Your task to perform on an android device: allow cookies in the chrome app Image 0: 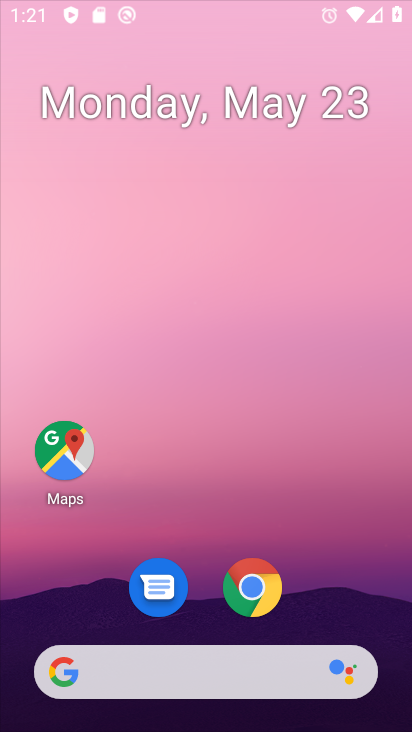
Step 0: click (65, 460)
Your task to perform on an android device: allow cookies in the chrome app Image 1: 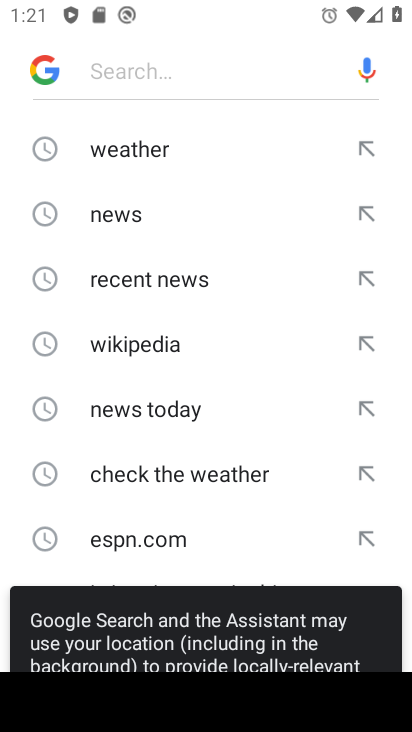
Step 1: press back button
Your task to perform on an android device: allow cookies in the chrome app Image 2: 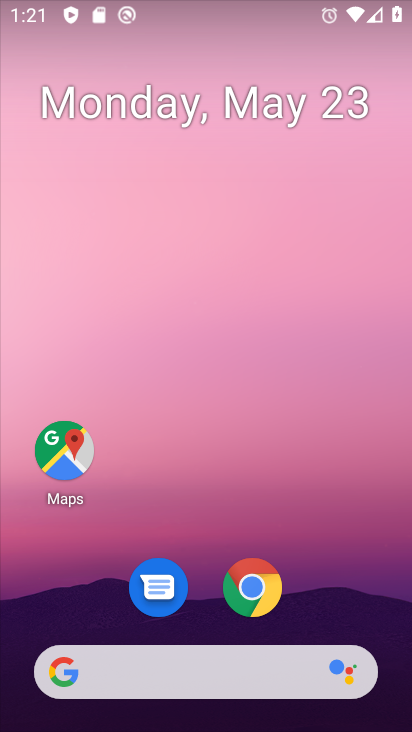
Step 2: click (279, 575)
Your task to perform on an android device: allow cookies in the chrome app Image 3: 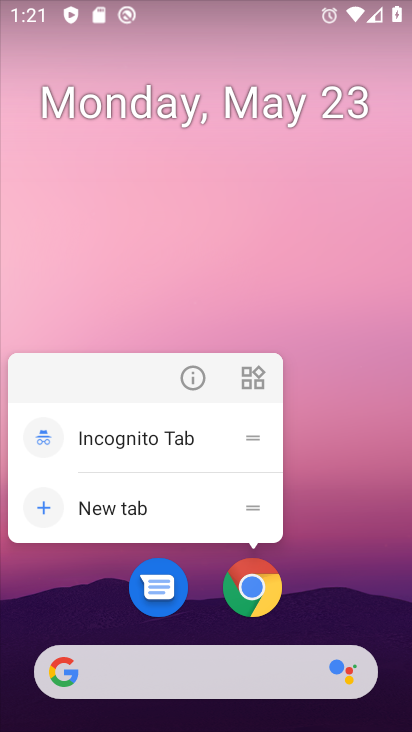
Step 3: click (250, 595)
Your task to perform on an android device: allow cookies in the chrome app Image 4: 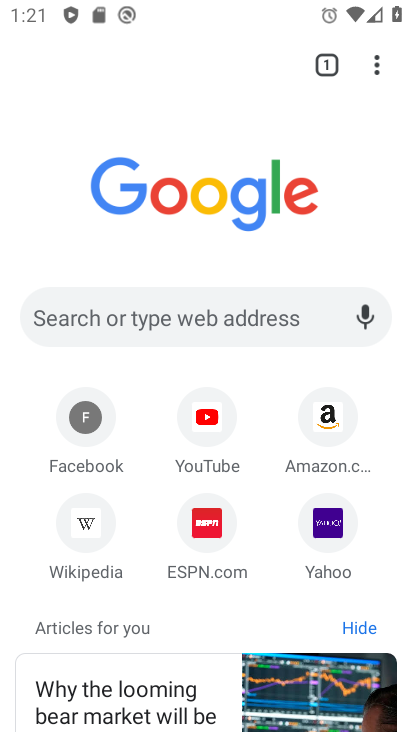
Step 4: click (385, 67)
Your task to perform on an android device: allow cookies in the chrome app Image 5: 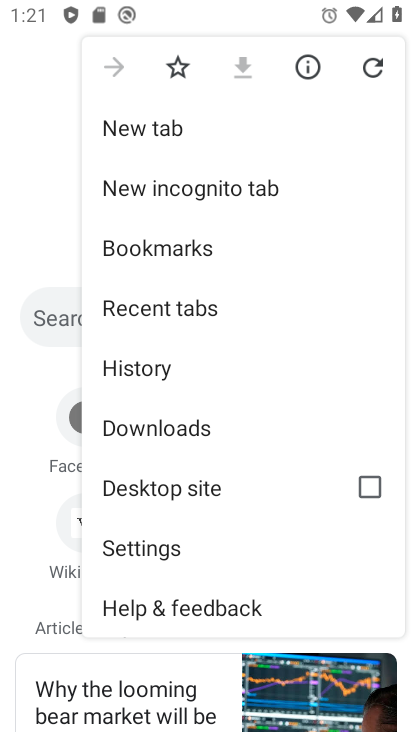
Step 5: drag from (206, 503) to (233, 333)
Your task to perform on an android device: allow cookies in the chrome app Image 6: 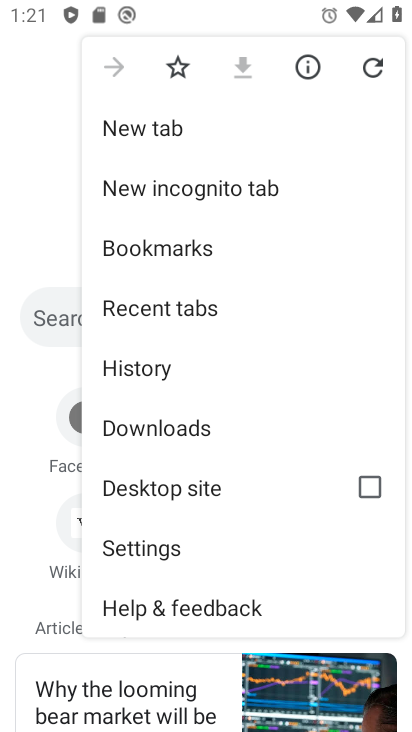
Step 6: click (175, 535)
Your task to perform on an android device: allow cookies in the chrome app Image 7: 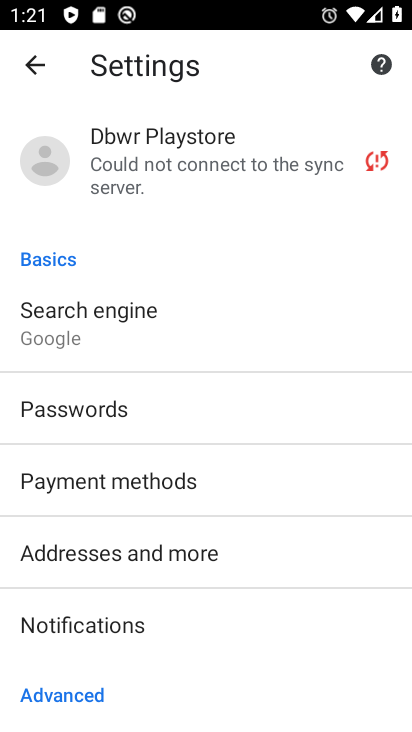
Step 7: task complete